Your task to perform on an android device: open wifi settings Image 0: 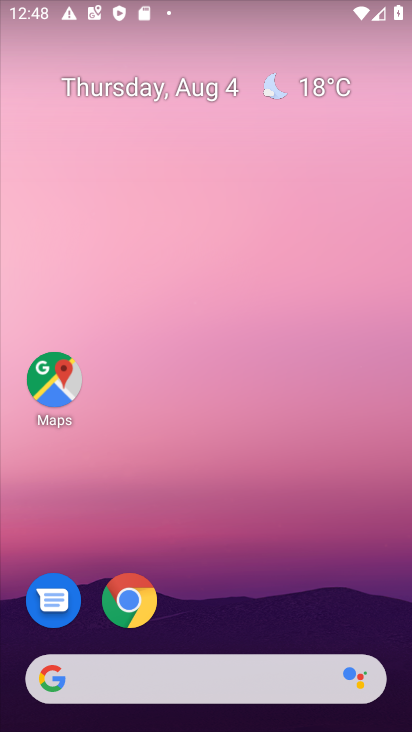
Step 0: drag from (161, 553) to (300, 69)
Your task to perform on an android device: open wifi settings Image 1: 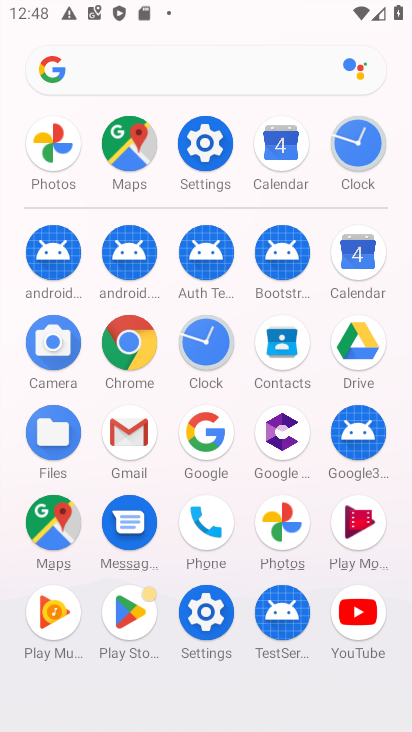
Step 1: click (211, 137)
Your task to perform on an android device: open wifi settings Image 2: 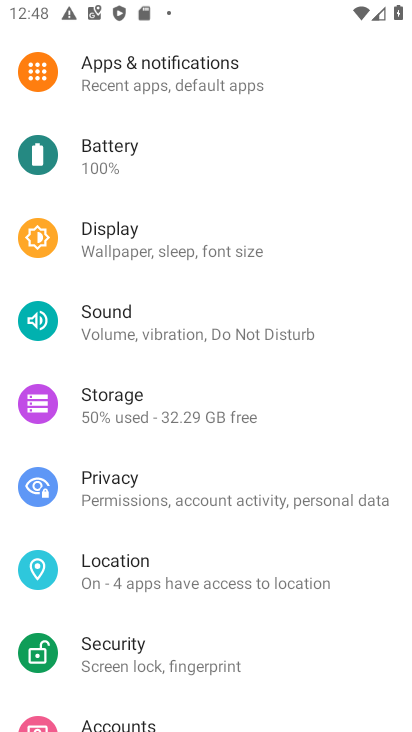
Step 2: drag from (216, 143) to (175, 605)
Your task to perform on an android device: open wifi settings Image 3: 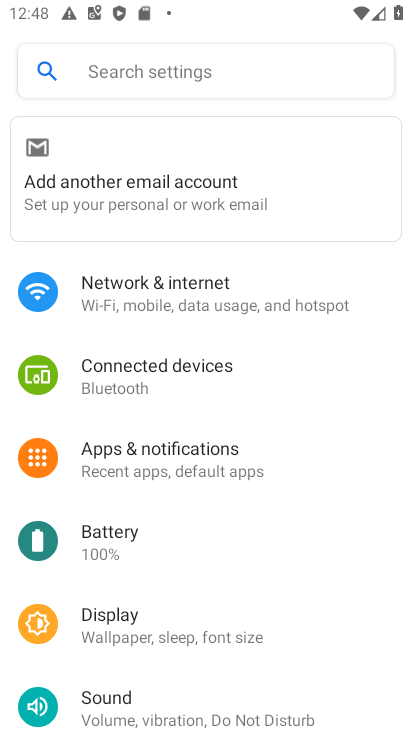
Step 3: click (178, 288)
Your task to perform on an android device: open wifi settings Image 4: 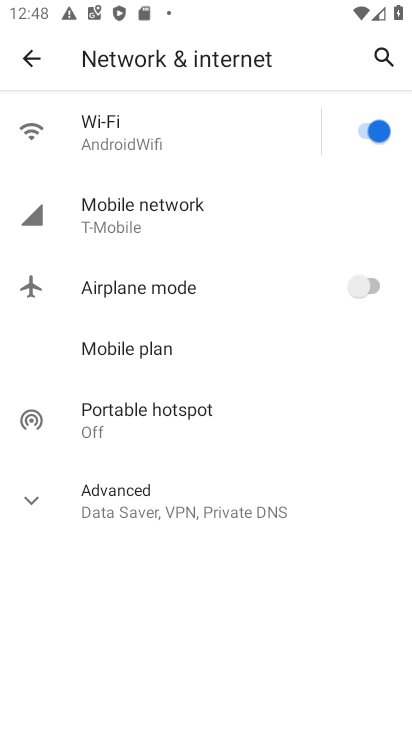
Step 4: click (112, 136)
Your task to perform on an android device: open wifi settings Image 5: 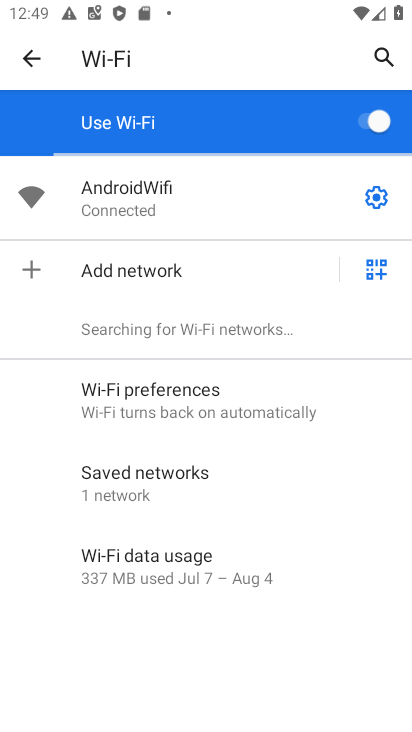
Step 5: task complete